Your task to perform on an android device: change alarm snooze length Image 0: 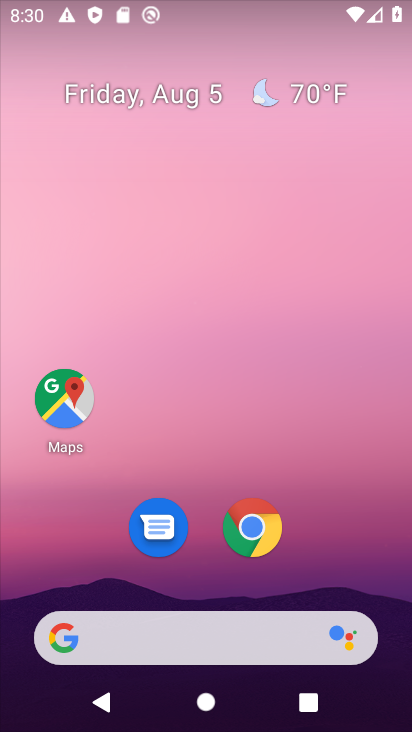
Step 0: drag from (231, 628) to (209, 11)
Your task to perform on an android device: change alarm snooze length Image 1: 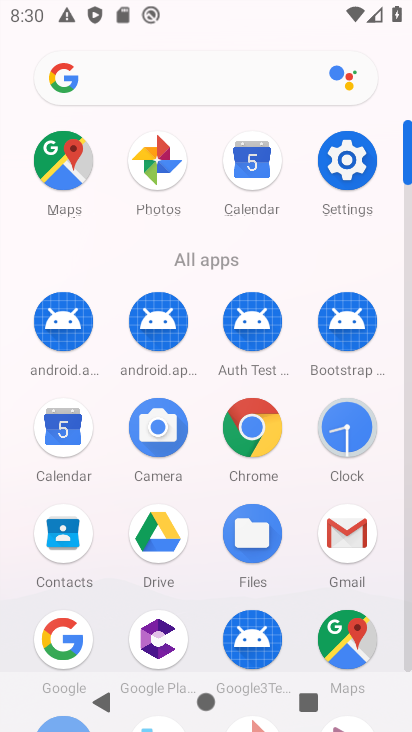
Step 1: click (360, 426)
Your task to perform on an android device: change alarm snooze length Image 2: 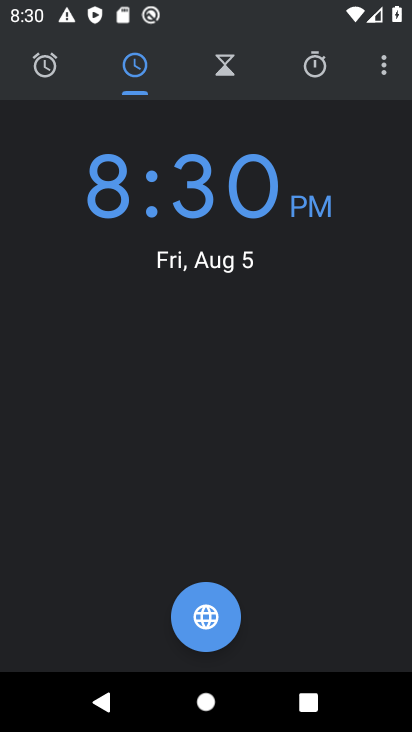
Step 2: click (56, 62)
Your task to perform on an android device: change alarm snooze length Image 3: 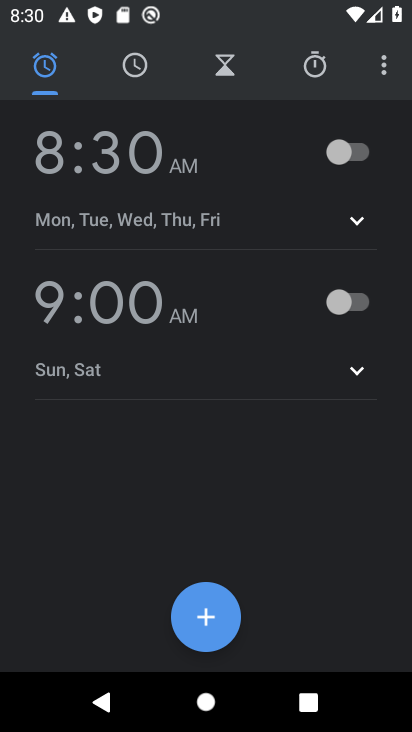
Step 3: click (383, 74)
Your task to perform on an android device: change alarm snooze length Image 4: 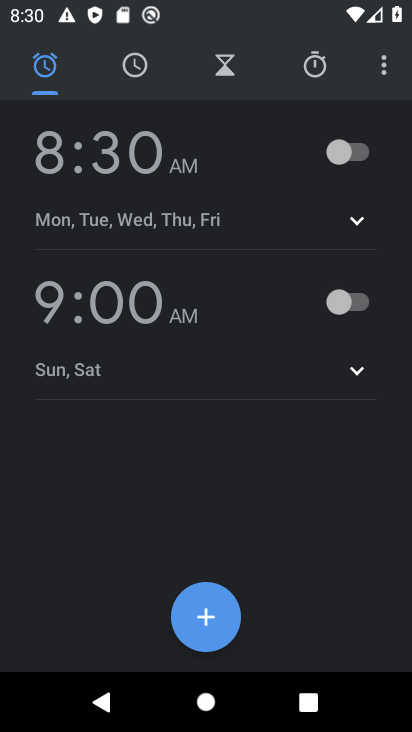
Step 4: click (380, 71)
Your task to perform on an android device: change alarm snooze length Image 5: 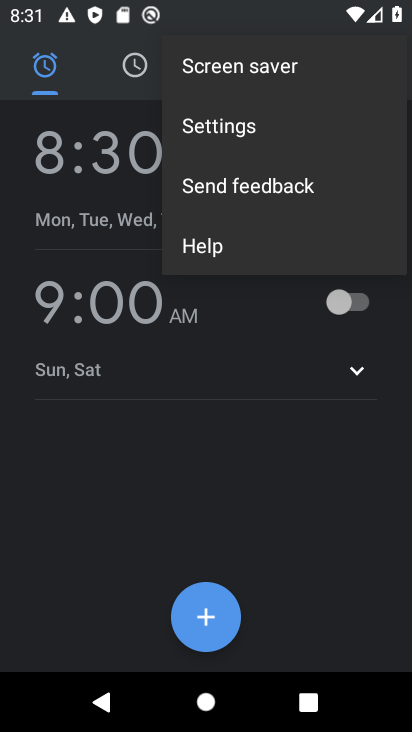
Step 5: click (268, 127)
Your task to perform on an android device: change alarm snooze length Image 6: 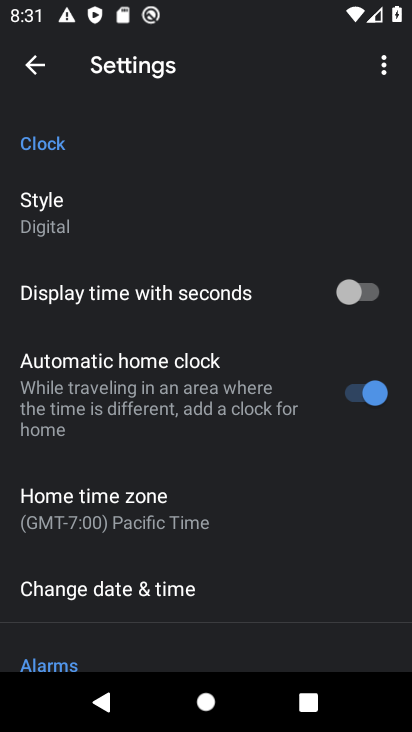
Step 6: drag from (254, 579) to (227, 90)
Your task to perform on an android device: change alarm snooze length Image 7: 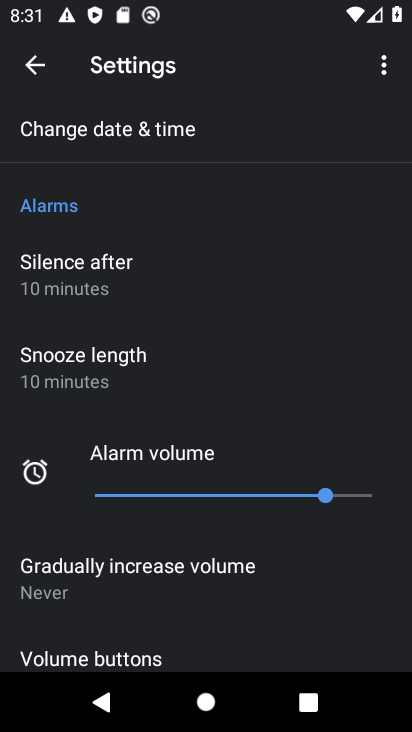
Step 7: click (85, 381)
Your task to perform on an android device: change alarm snooze length Image 8: 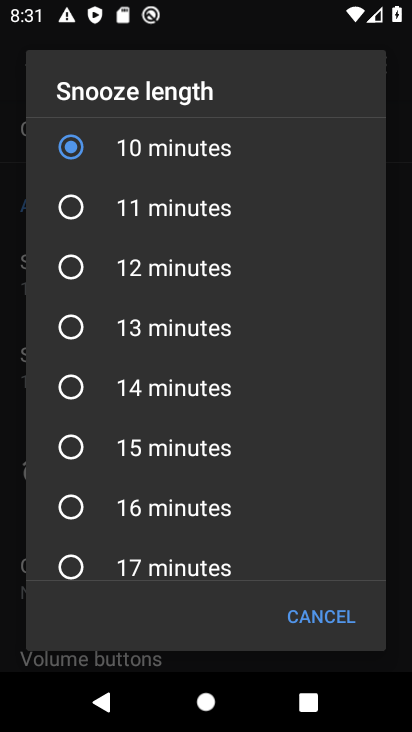
Step 8: click (162, 553)
Your task to perform on an android device: change alarm snooze length Image 9: 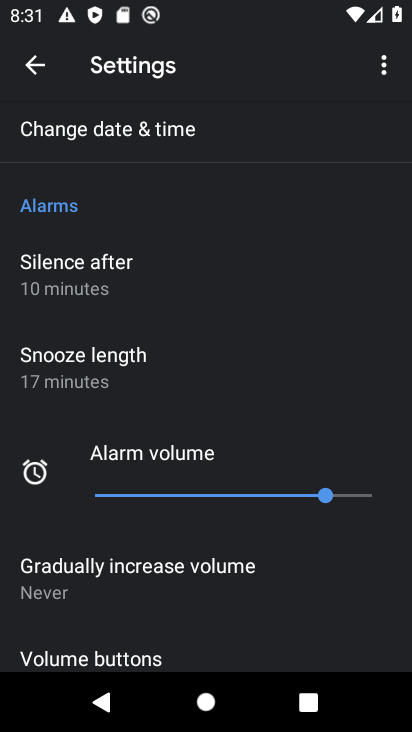
Step 9: task complete